Your task to perform on an android device: When is my next meeting? Image 0: 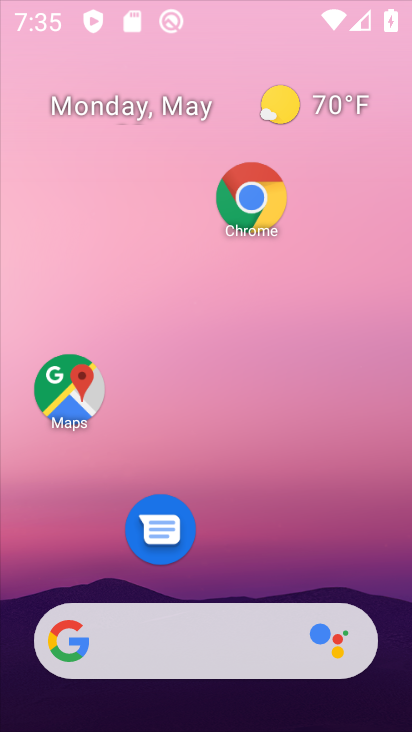
Step 0: press home button
Your task to perform on an android device: When is my next meeting? Image 1: 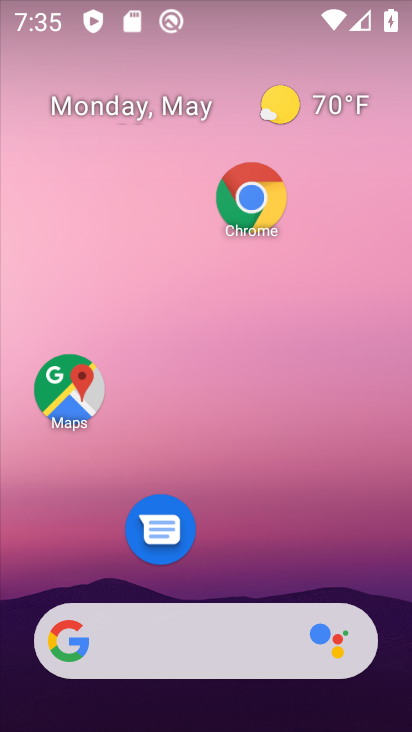
Step 1: drag from (217, 576) to (232, 108)
Your task to perform on an android device: When is my next meeting? Image 2: 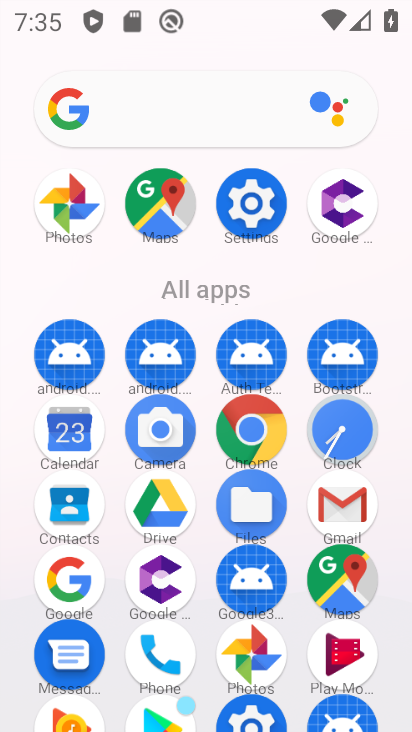
Step 2: click (65, 425)
Your task to perform on an android device: When is my next meeting? Image 3: 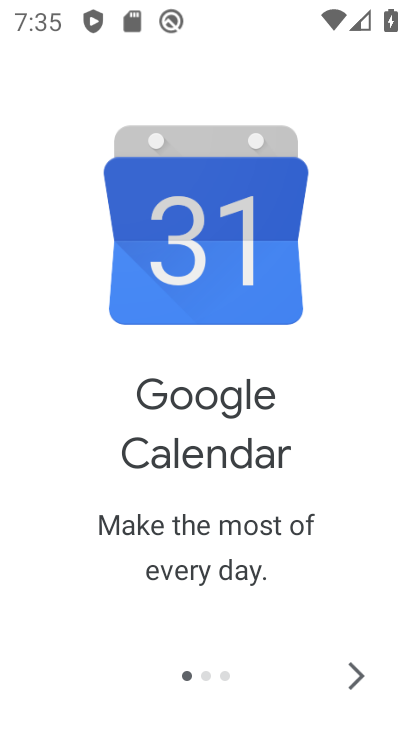
Step 3: click (345, 672)
Your task to perform on an android device: When is my next meeting? Image 4: 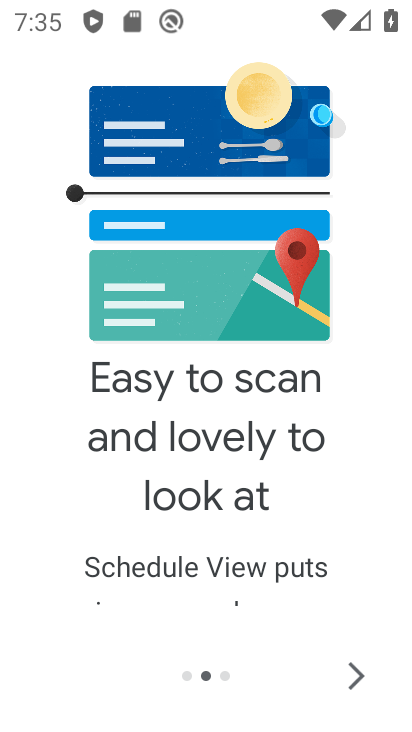
Step 4: click (355, 669)
Your task to perform on an android device: When is my next meeting? Image 5: 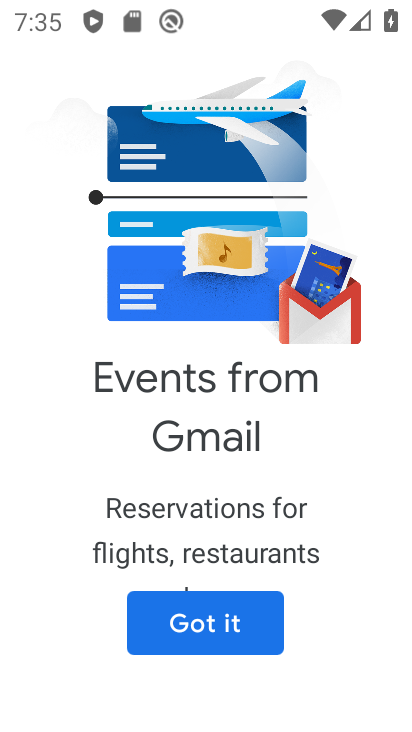
Step 5: click (204, 628)
Your task to perform on an android device: When is my next meeting? Image 6: 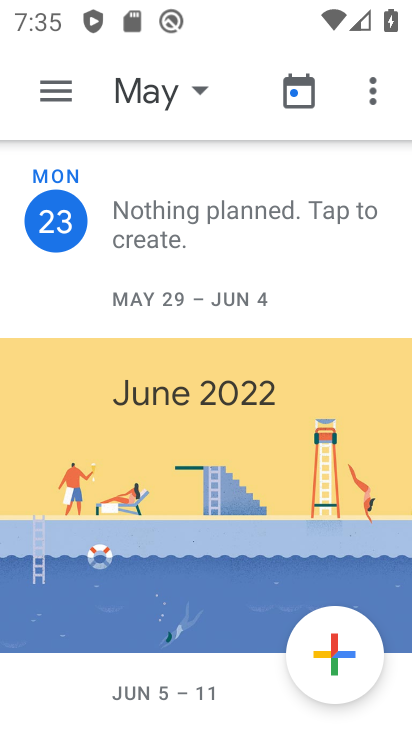
Step 6: click (58, 94)
Your task to perform on an android device: When is my next meeting? Image 7: 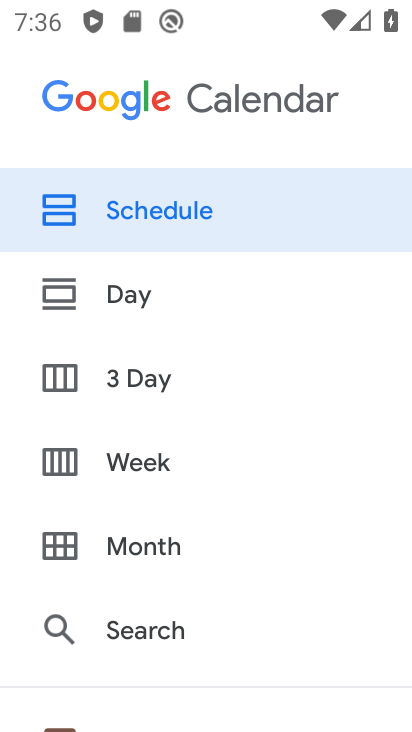
Step 7: click (83, 452)
Your task to perform on an android device: When is my next meeting? Image 8: 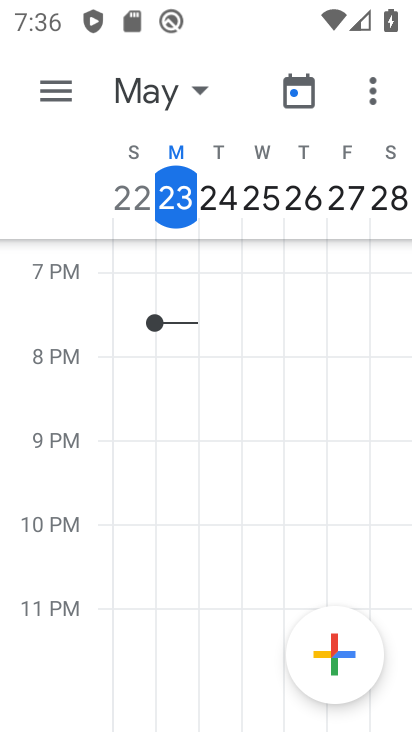
Step 8: click (178, 213)
Your task to perform on an android device: When is my next meeting? Image 9: 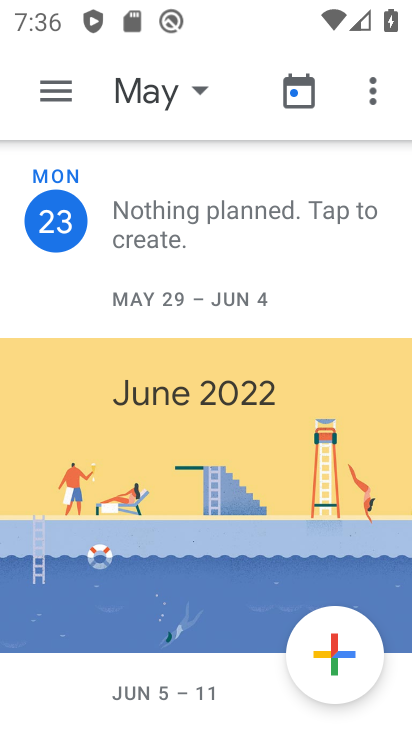
Step 9: drag from (76, 408) to (71, 145)
Your task to perform on an android device: When is my next meeting? Image 10: 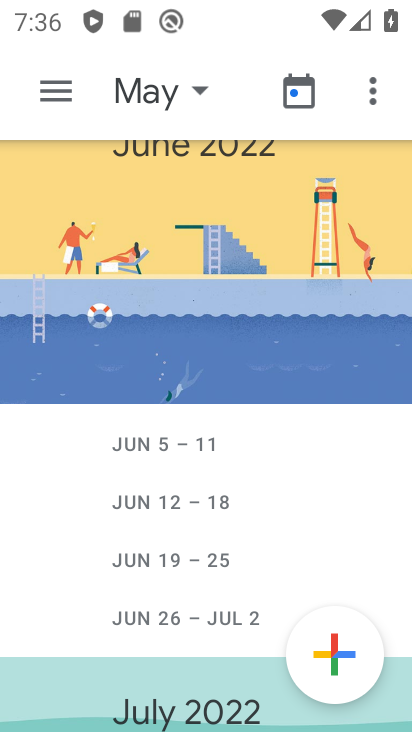
Step 10: drag from (68, 338) to (84, 612)
Your task to perform on an android device: When is my next meeting? Image 11: 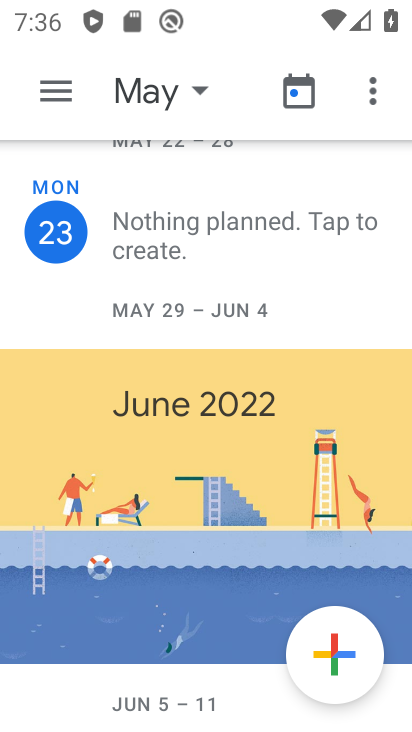
Step 11: click (191, 94)
Your task to perform on an android device: When is my next meeting? Image 12: 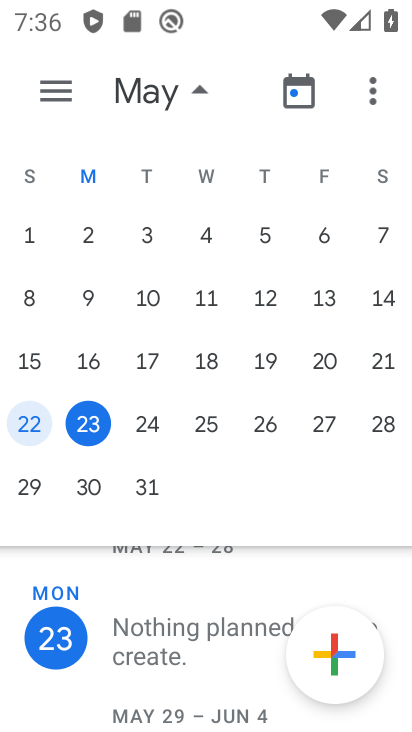
Step 12: click (80, 426)
Your task to perform on an android device: When is my next meeting? Image 13: 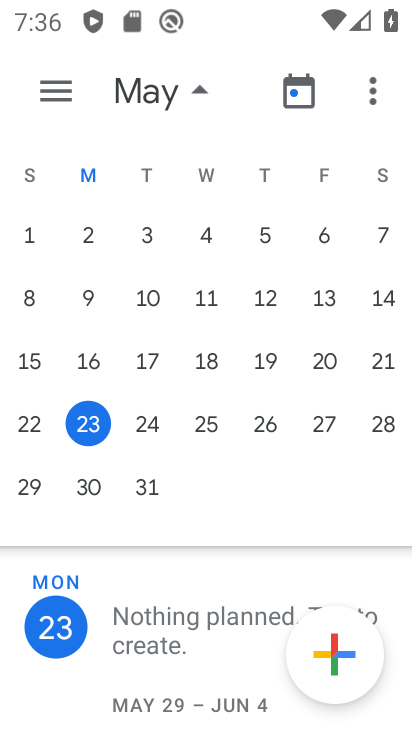
Step 13: click (85, 426)
Your task to perform on an android device: When is my next meeting? Image 14: 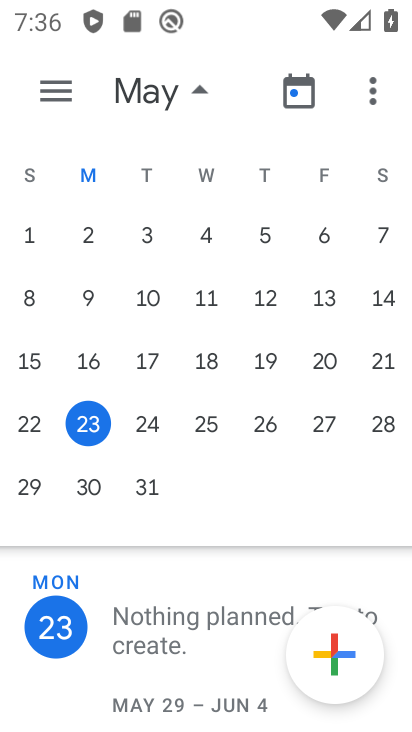
Step 14: click (85, 426)
Your task to perform on an android device: When is my next meeting? Image 15: 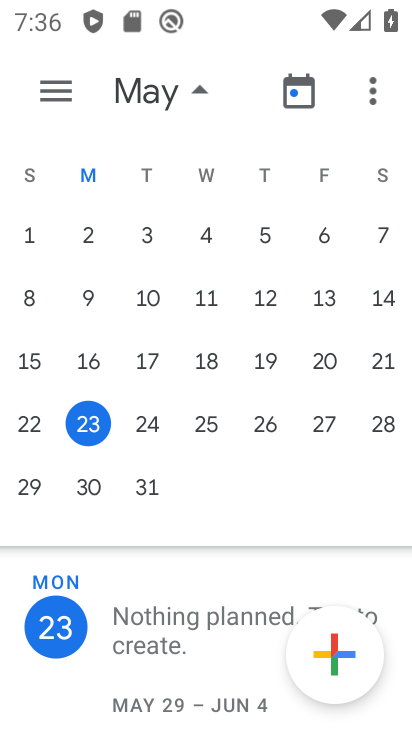
Step 15: click (42, 83)
Your task to perform on an android device: When is my next meeting? Image 16: 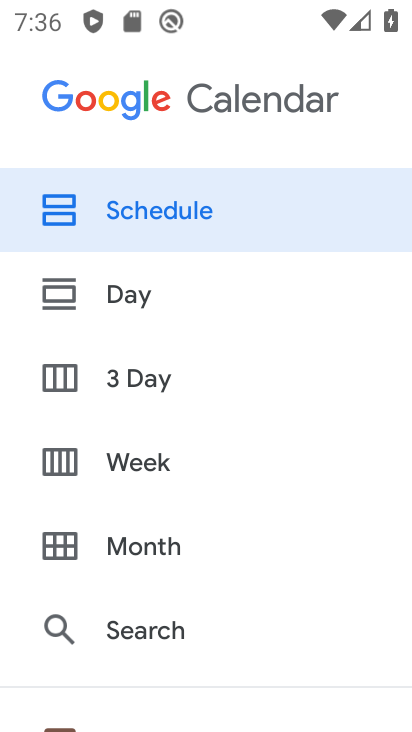
Step 16: click (97, 457)
Your task to perform on an android device: When is my next meeting? Image 17: 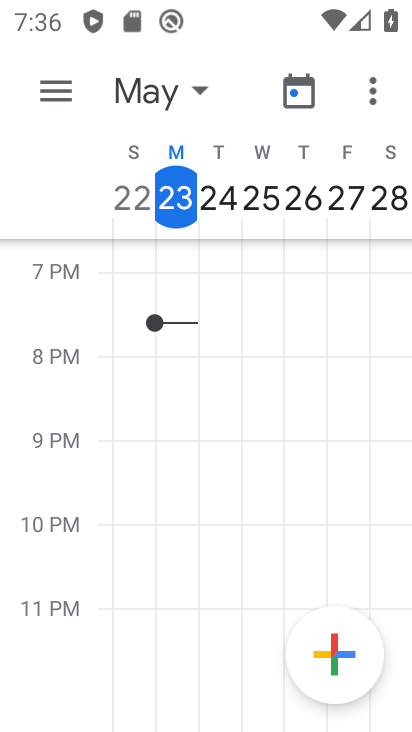
Step 17: click (172, 196)
Your task to perform on an android device: When is my next meeting? Image 18: 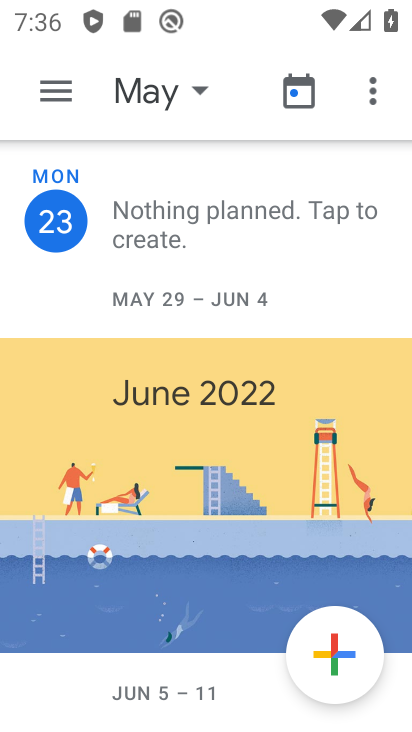
Step 18: drag from (84, 274) to (79, 126)
Your task to perform on an android device: When is my next meeting? Image 19: 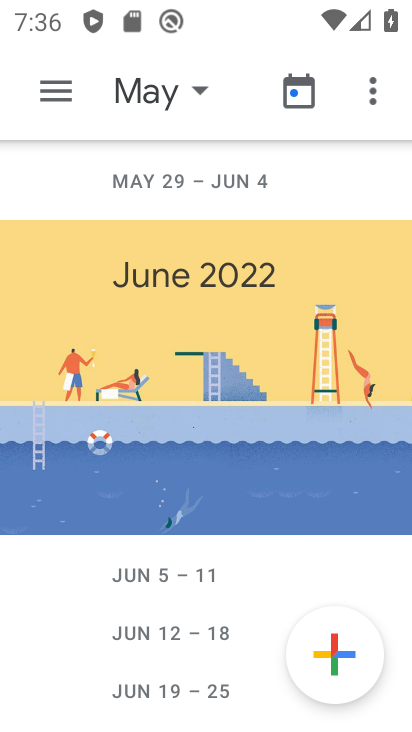
Step 19: drag from (36, 575) to (54, 133)
Your task to perform on an android device: When is my next meeting? Image 20: 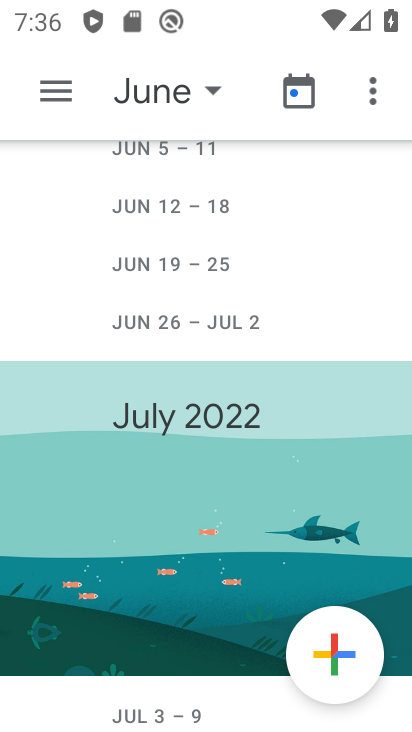
Step 20: drag from (33, 519) to (60, 169)
Your task to perform on an android device: When is my next meeting? Image 21: 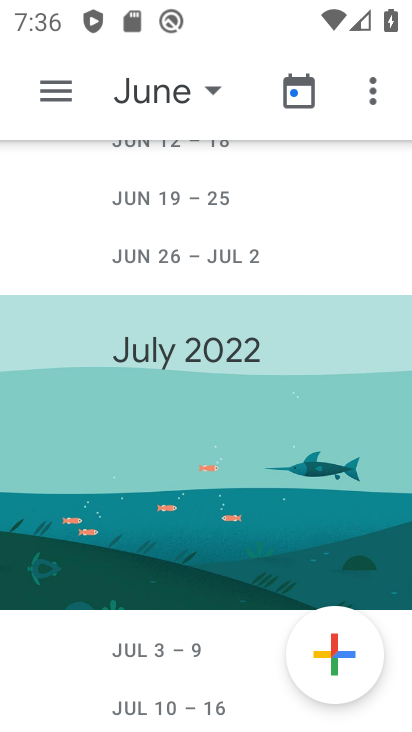
Step 21: drag from (91, 647) to (96, 158)
Your task to perform on an android device: When is my next meeting? Image 22: 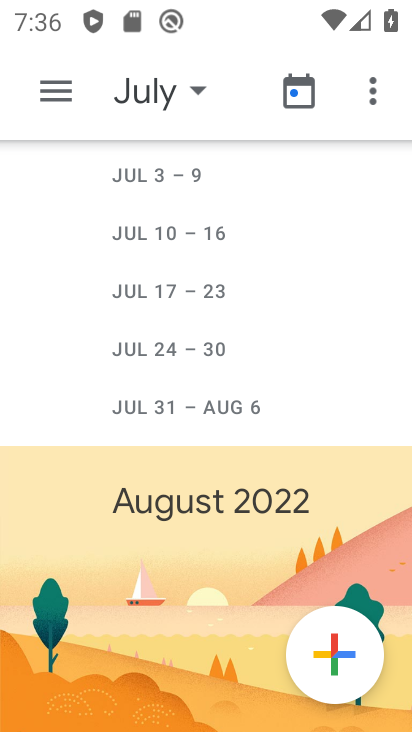
Step 22: drag from (80, 569) to (89, 134)
Your task to perform on an android device: When is my next meeting? Image 23: 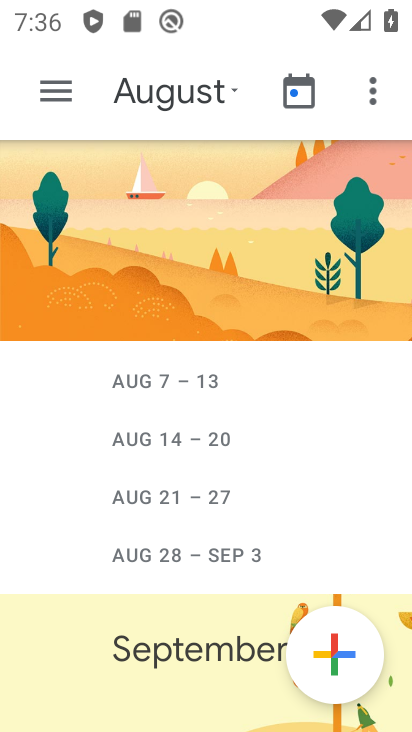
Step 23: drag from (98, 528) to (108, 118)
Your task to perform on an android device: When is my next meeting? Image 24: 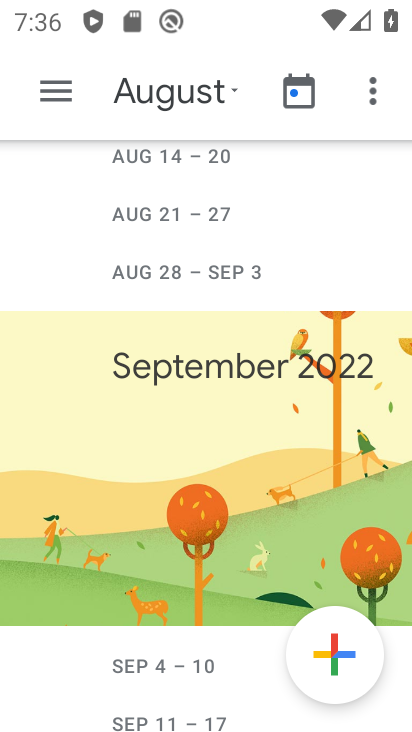
Step 24: drag from (108, 608) to (110, 215)
Your task to perform on an android device: When is my next meeting? Image 25: 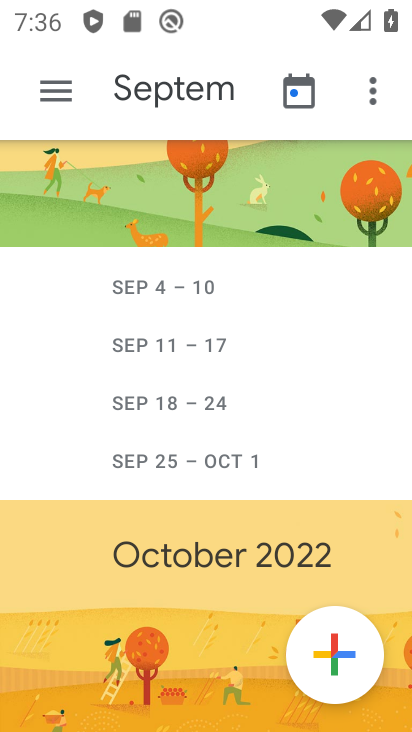
Step 25: click (217, 92)
Your task to perform on an android device: When is my next meeting? Image 26: 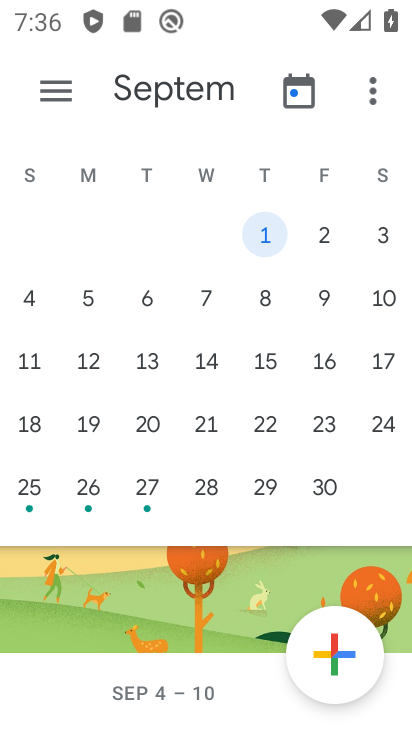
Step 26: drag from (27, 399) to (374, 410)
Your task to perform on an android device: When is my next meeting? Image 27: 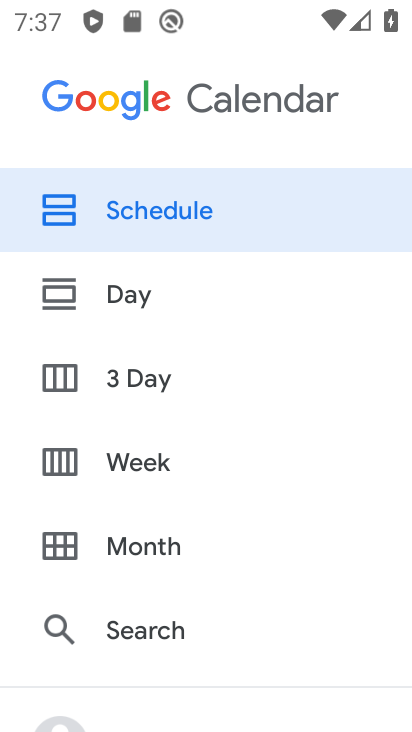
Step 27: click (116, 290)
Your task to perform on an android device: When is my next meeting? Image 28: 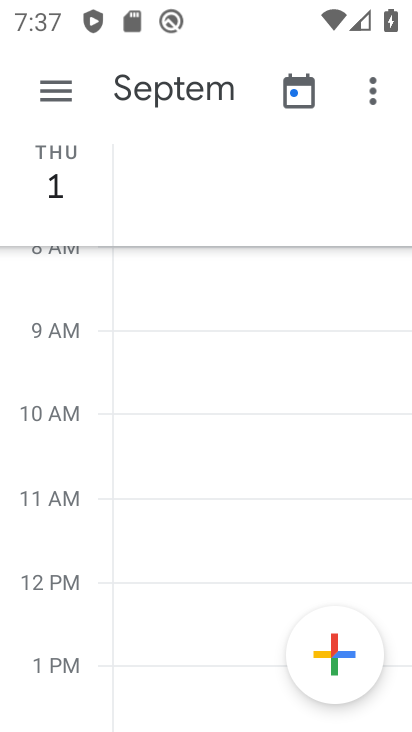
Step 28: click (202, 85)
Your task to perform on an android device: When is my next meeting? Image 29: 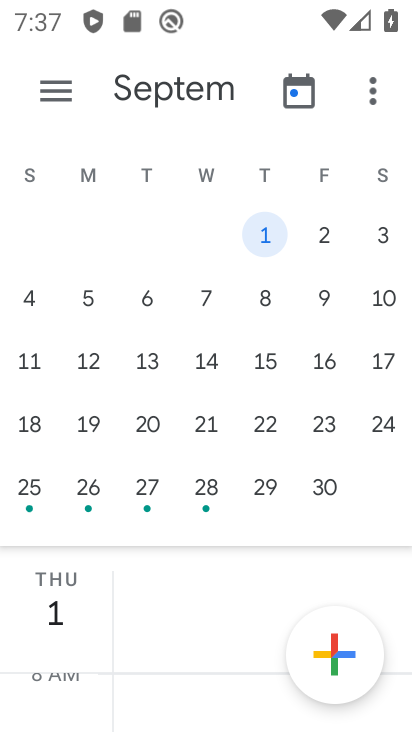
Step 29: drag from (58, 375) to (379, 380)
Your task to perform on an android device: When is my next meeting? Image 30: 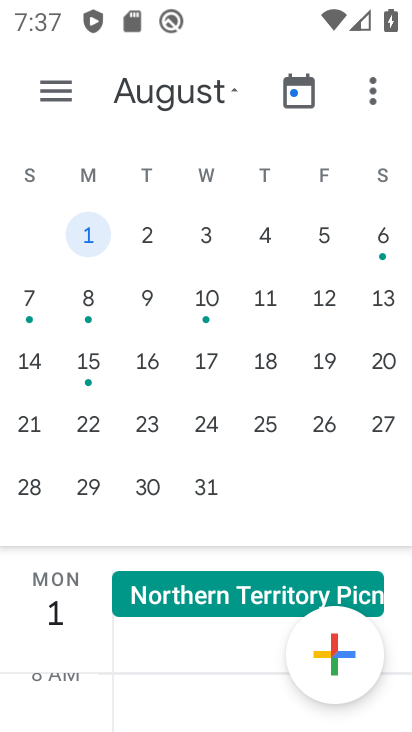
Step 30: drag from (122, 364) to (407, 374)
Your task to perform on an android device: When is my next meeting? Image 31: 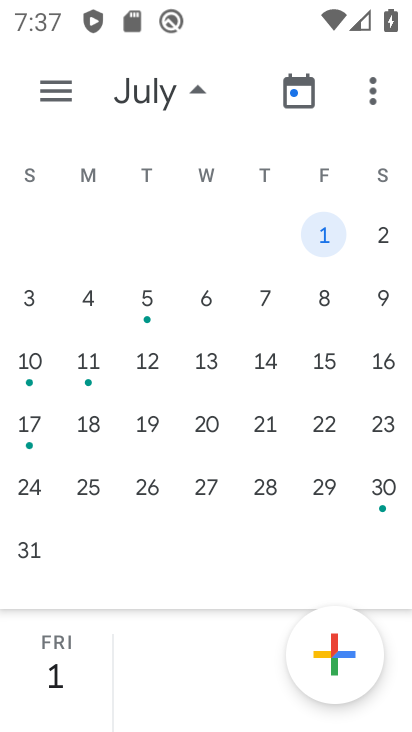
Step 31: drag from (130, 389) to (407, 381)
Your task to perform on an android device: When is my next meeting? Image 32: 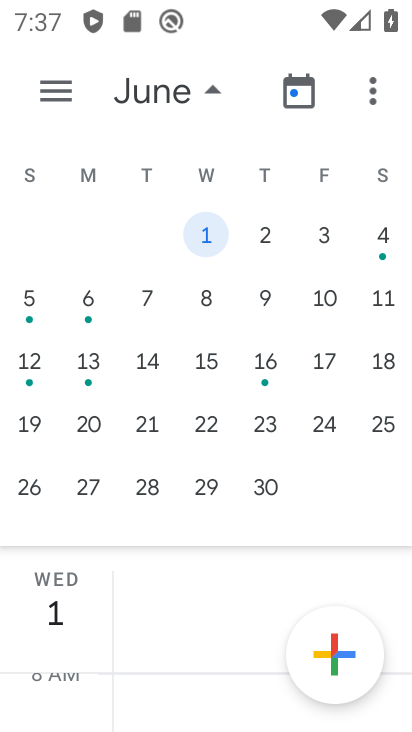
Step 32: drag from (117, 405) to (411, 422)
Your task to perform on an android device: When is my next meeting? Image 33: 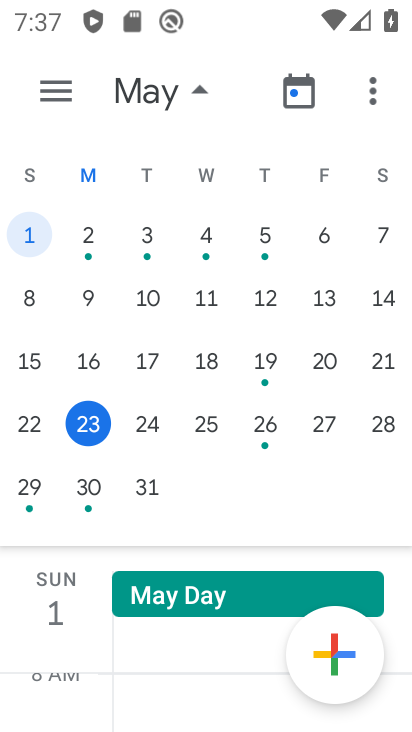
Step 33: click (92, 418)
Your task to perform on an android device: When is my next meeting? Image 34: 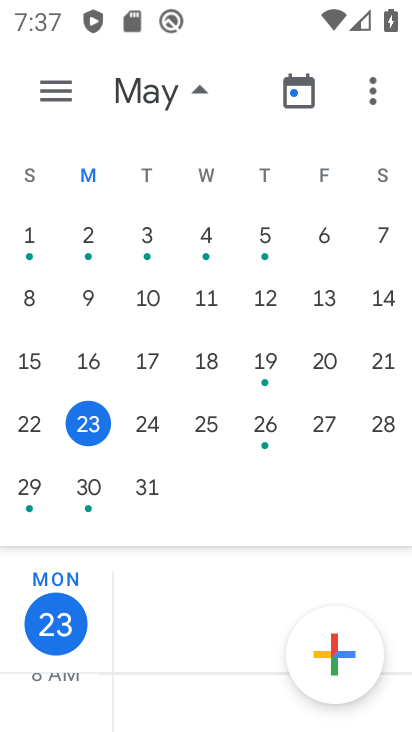
Step 34: click (199, 90)
Your task to perform on an android device: When is my next meeting? Image 35: 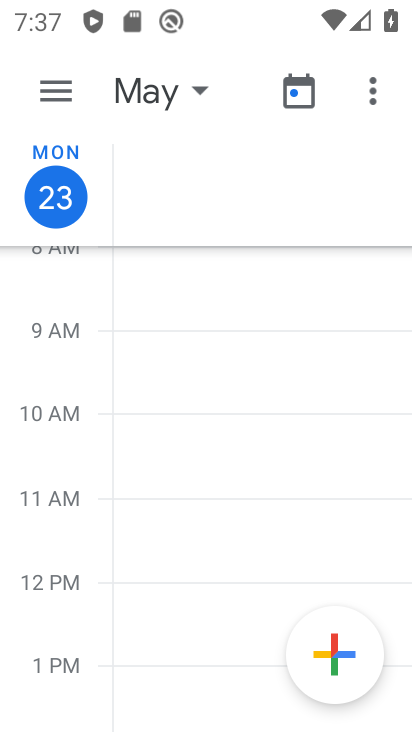
Step 35: click (88, 213)
Your task to perform on an android device: When is my next meeting? Image 36: 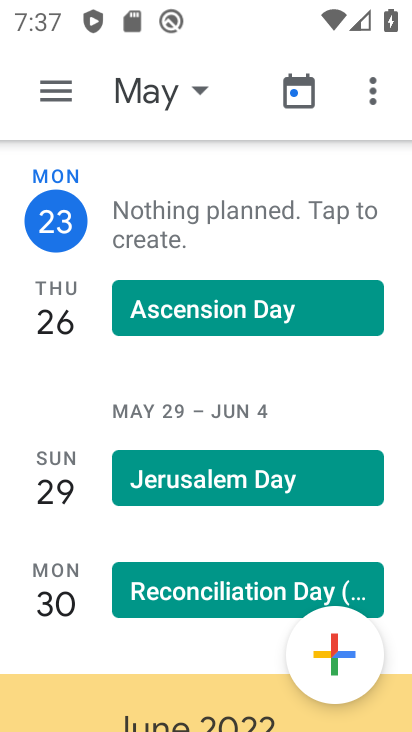
Step 36: click (47, 94)
Your task to perform on an android device: When is my next meeting? Image 37: 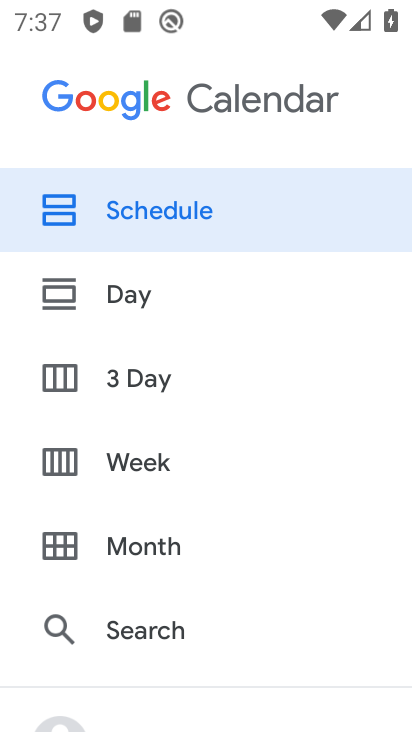
Step 37: drag from (108, 524) to (145, 177)
Your task to perform on an android device: When is my next meeting? Image 38: 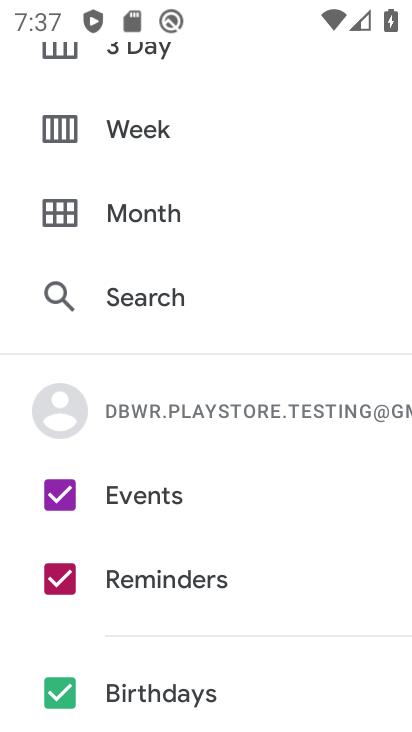
Step 38: drag from (96, 487) to (199, 675)
Your task to perform on an android device: When is my next meeting? Image 39: 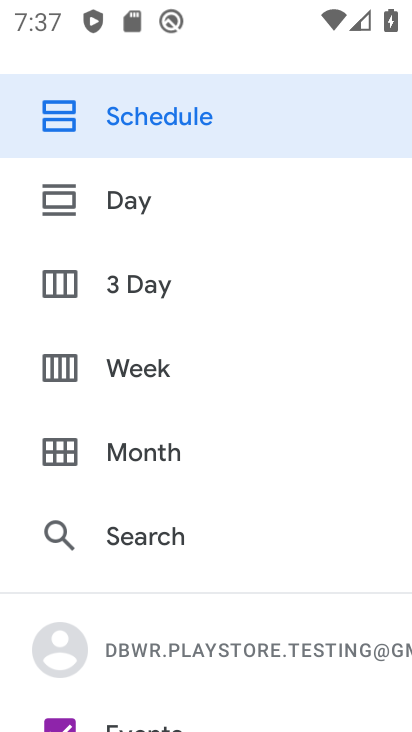
Step 39: click (95, 114)
Your task to perform on an android device: When is my next meeting? Image 40: 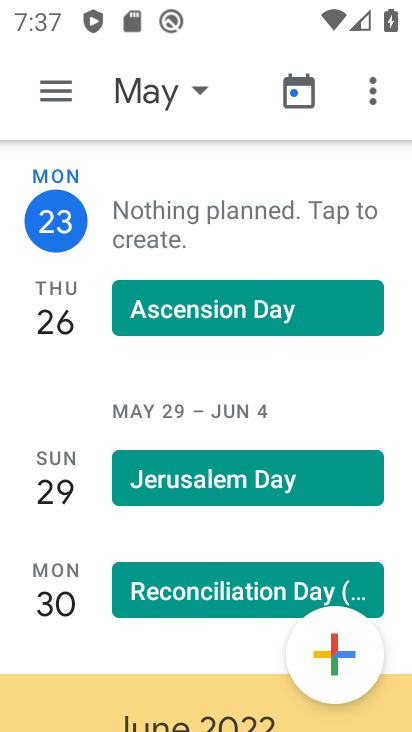
Step 40: task complete